Your task to perform on an android device: turn notification dots on Image 0: 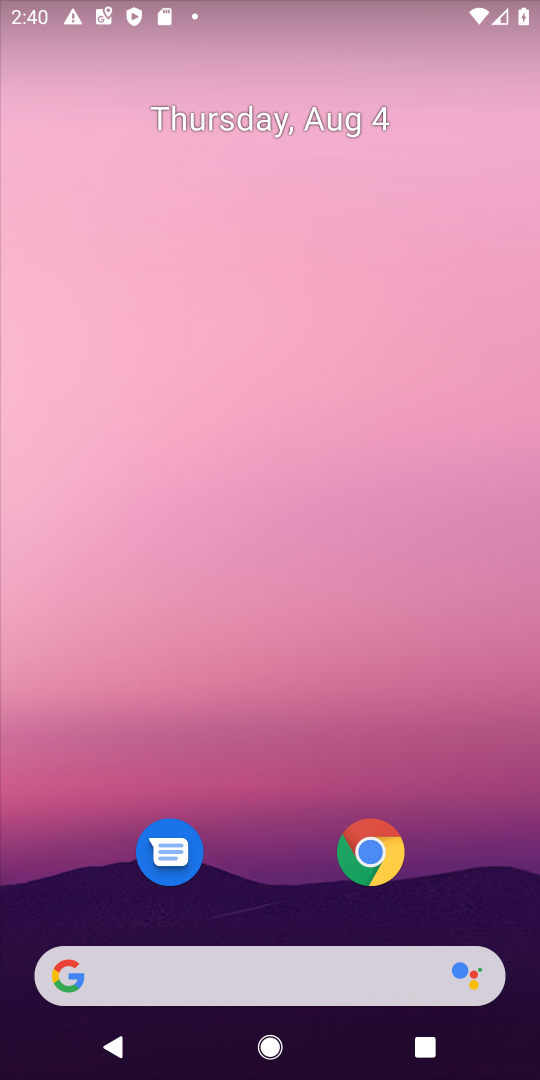
Step 0: drag from (256, 932) to (349, 30)
Your task to perform on an android device: turn notification dots on Image 1: 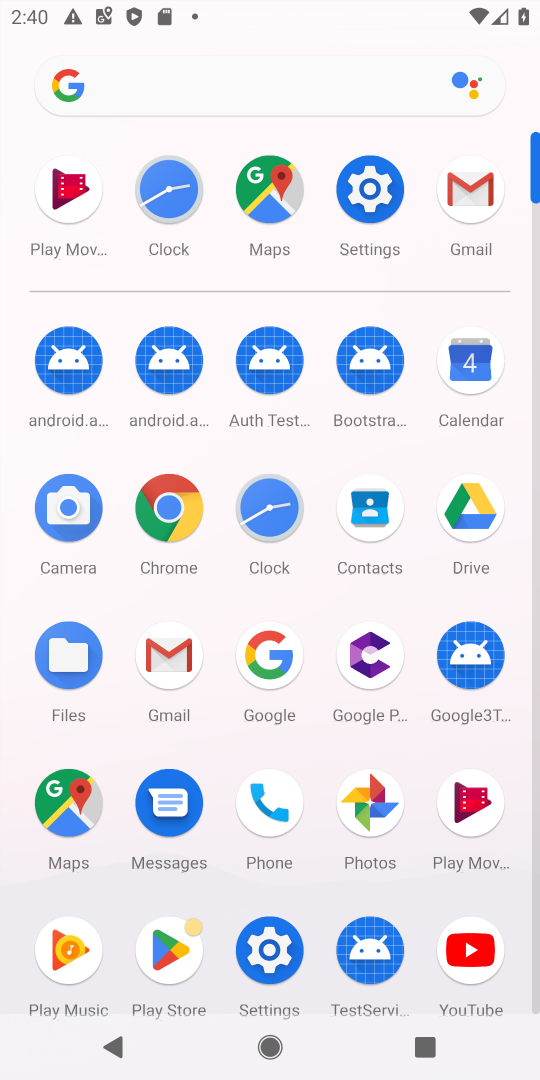
Step 1: click (360, 187)
Your task to perform on an android device: turn notification dots on Image 2: 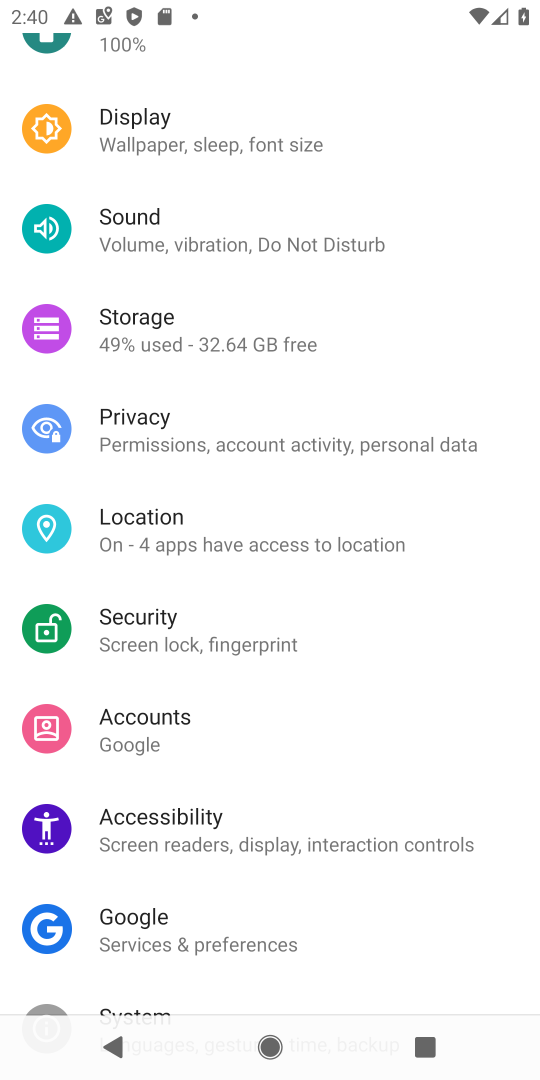
Step 2: drag from (348, 231) to (245, 962)
Your task to perform on an android device: turn notification dots on Image 3: 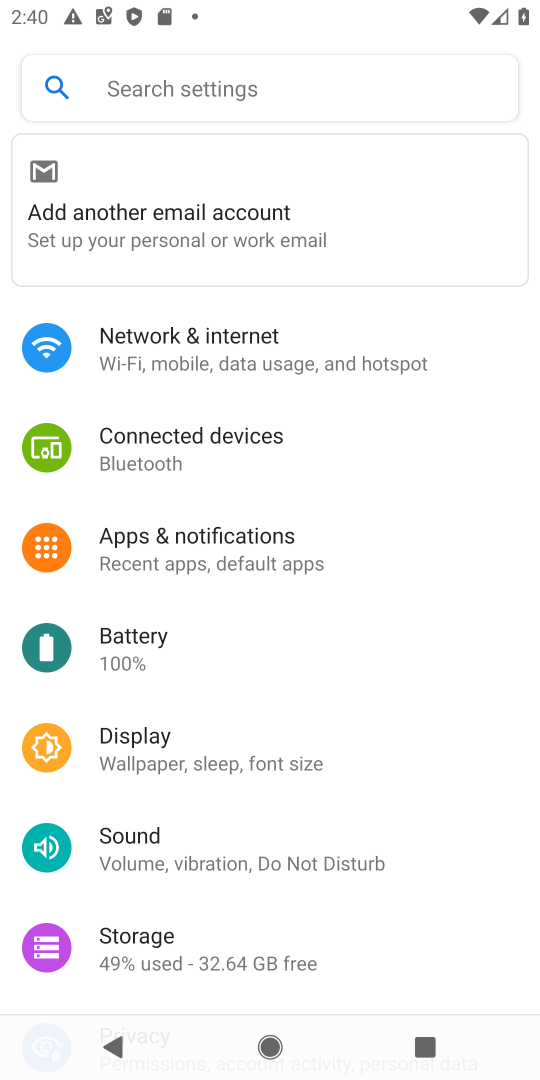
Step 3: click (222, 532)
Your task to perform on an android device: turn notification dots on Image 4: 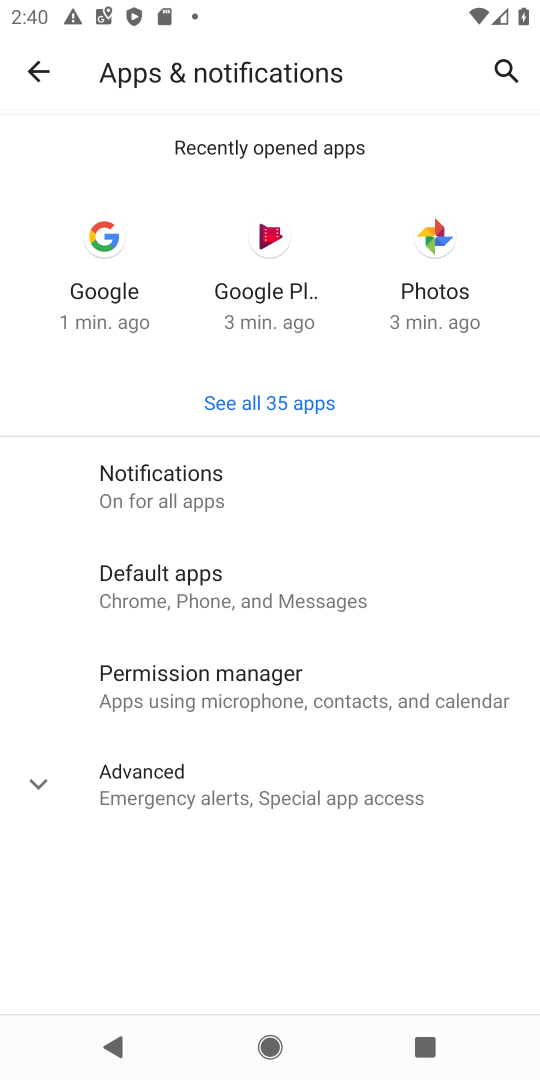
Step 4: click (142, 493)
Your task to perform on an android device: turn notification dots on Image 5: 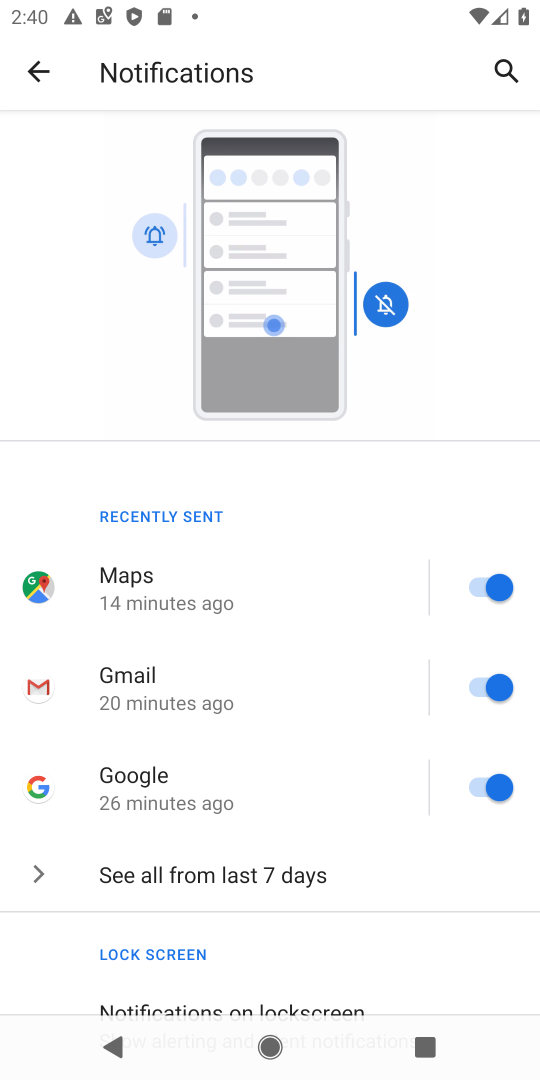
Step 5: drag from (313, 958) to (330, 167)
Your task to perform on an android device: turn notification dots on Image 6: 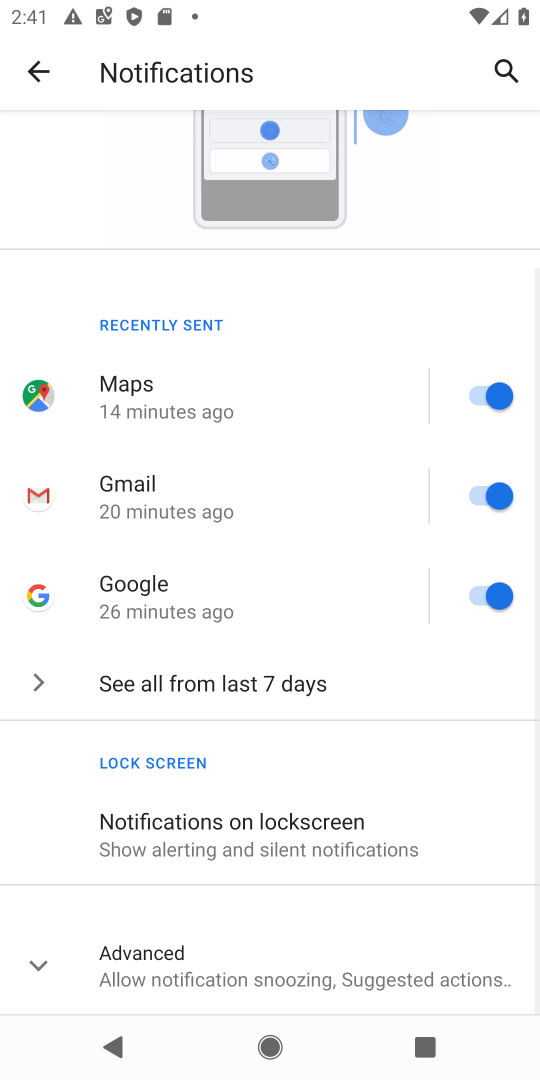
Step 6: click (147, 952)
Your task to perform on an android device: turn notification dots on Image 7: 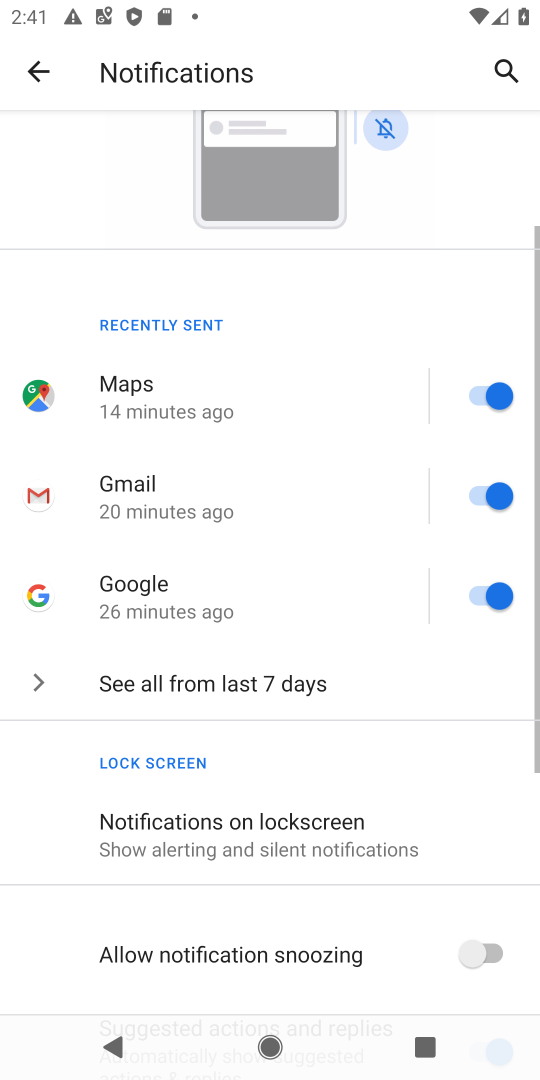
Step 7: task complete